Your task to perform on an android device: turn off notifications settings in the gmail app Image 0: 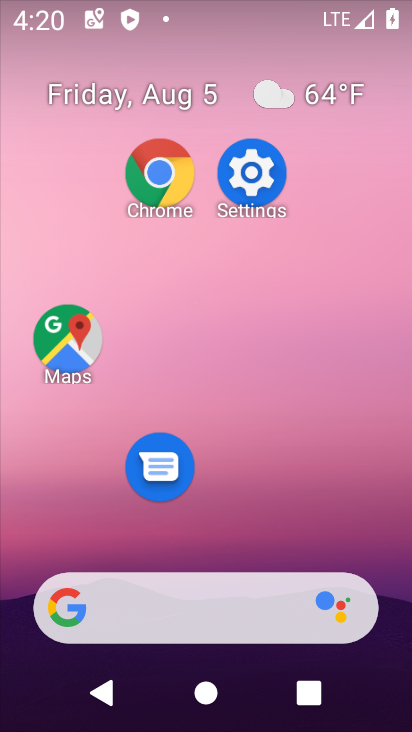
Step 0: drag from (346, 530) to (216, 0)
Your task to perform on an android device: turn off notifications settings in the gmail app Image 1: 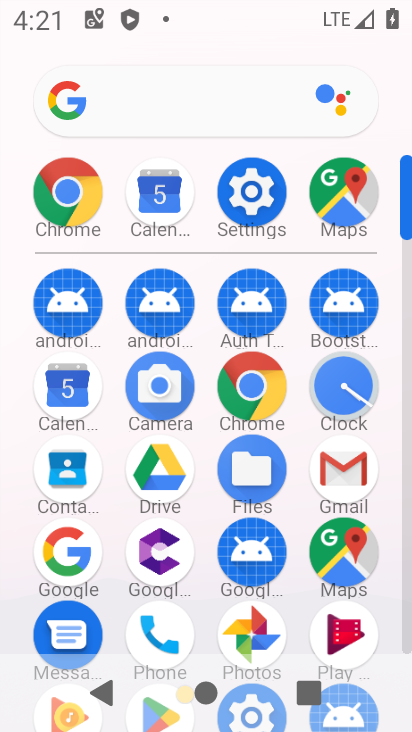
Step 1: click (344, 474)
Your task to perform on an android device: turn off notifications settings in the gmail app Image 2: 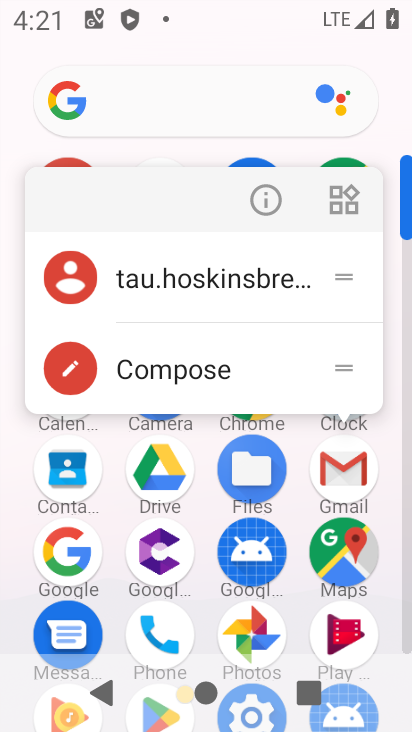
Step 2: click (272, 195)
Your task to perform on an android device: turn off notifications settings in the gmail app Image 3: 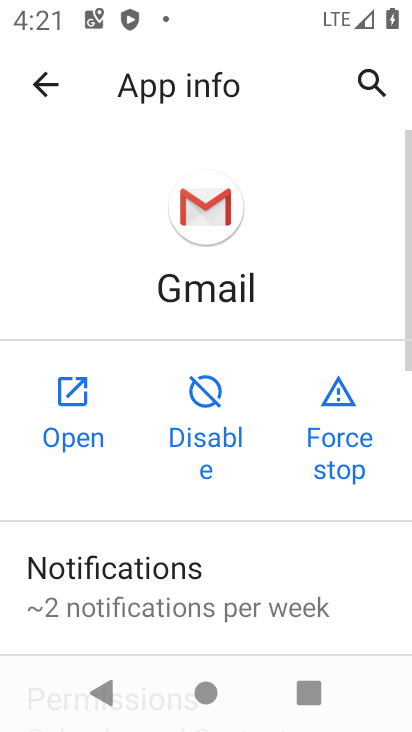
Step 3: click (219, 590)
Your task to perform on an android device: turn off notifications settings in the gmail app Image 4: 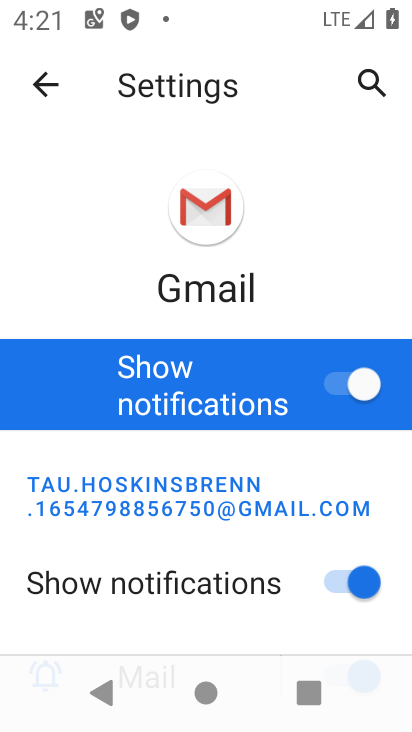
Step 4: drag from (243, 540) to (252, 169)
Your task to perform on an android device: turn off notifications settings in the gmail app Image 5: 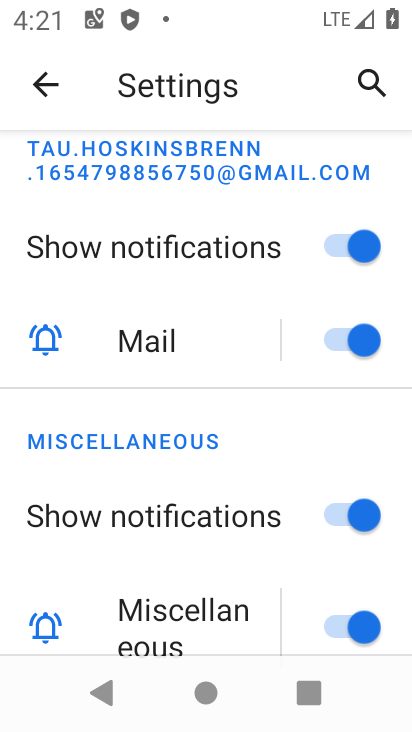
Step 5: drag from (283, 538) to (326, 308)
Your task to perform on an android device: turn off notifications settings in the gmail app Image 6: 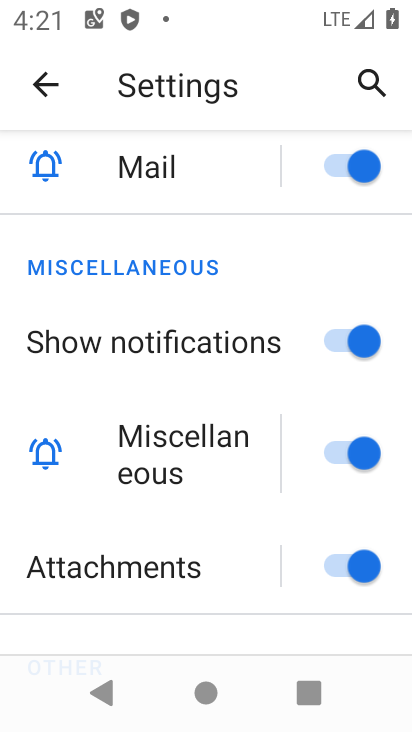
Step 6: drag from (275, 503) to (281, 355)
Your task to perform on an android device: turn off notifications settings in the gmail app Image 7: 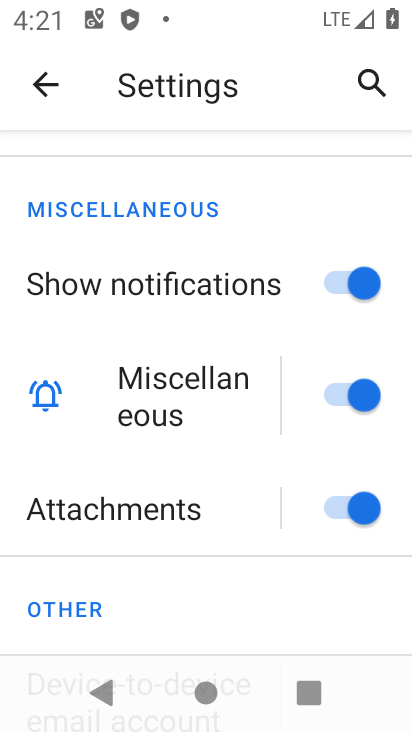
Step 7: drag from (251, 280) to (227, 614)
Your task to perform on an android device: turn off notifications settings in the gmail app Image 8: 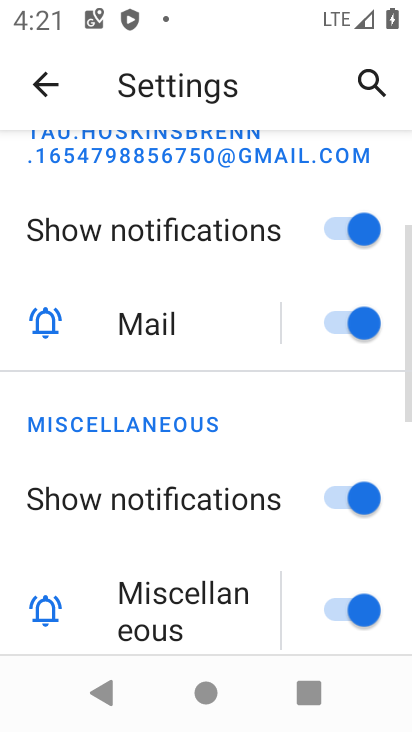
Step 8: drag from (278, 223) to (274, 599)
Your task to perform on an android device: turn off notifications settings in the gmail app Image 9: 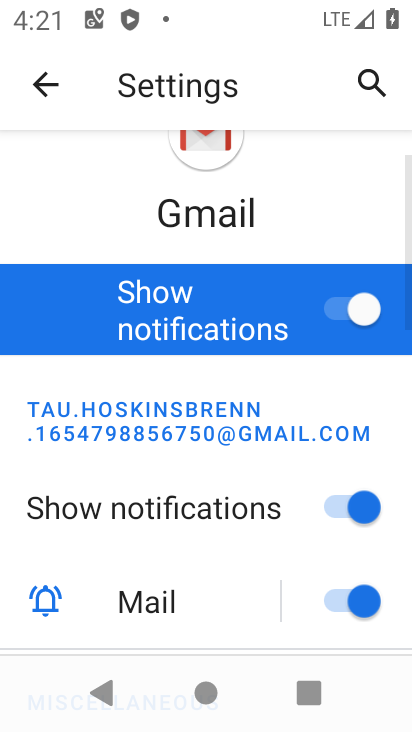
Step 9: click (348, 311)
Your task to perform on an android device: turn off notifications settings in the gmail app Image 10: 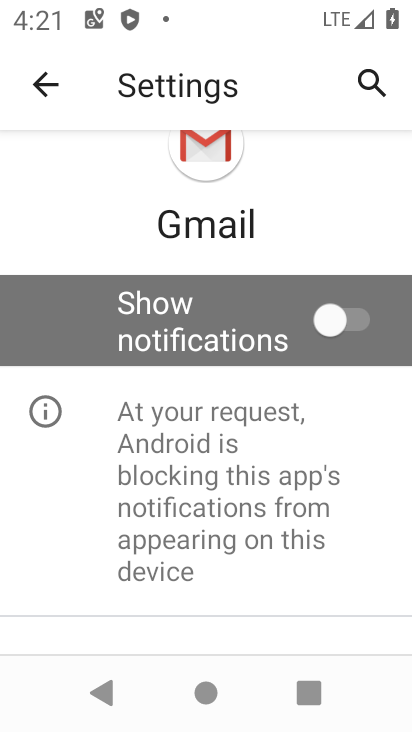
Step 10: task complete